Your task to perform on an android device: Go to location settings Image 0: 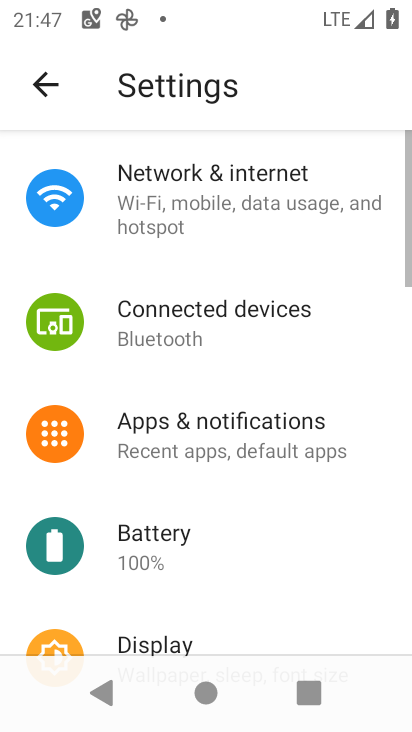
Step 0: drag from (278, 554) to (261, 212)
Your task to perform on an android device: Go to location settings Image 1: 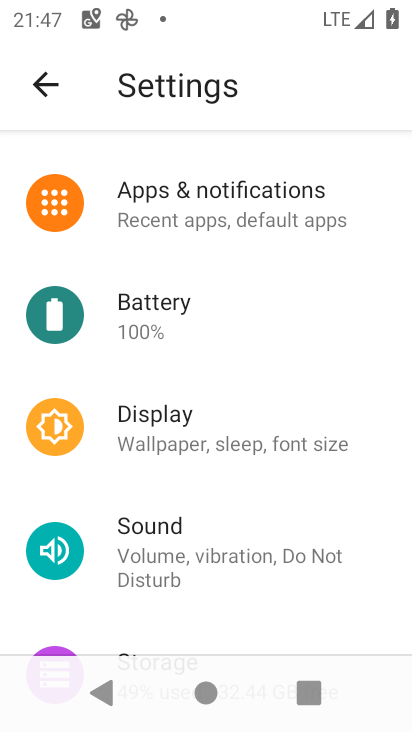
Step 1: drag from (240, 613) to (269, 255)
Your task to perform on an android device: Go to location settings Image 2: 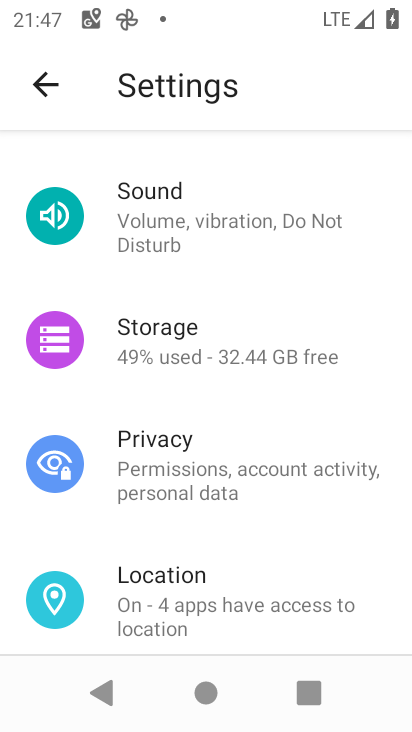
Step 2: click (221, 600)
Your task to perform on an android device: Go to location settings Image 3: 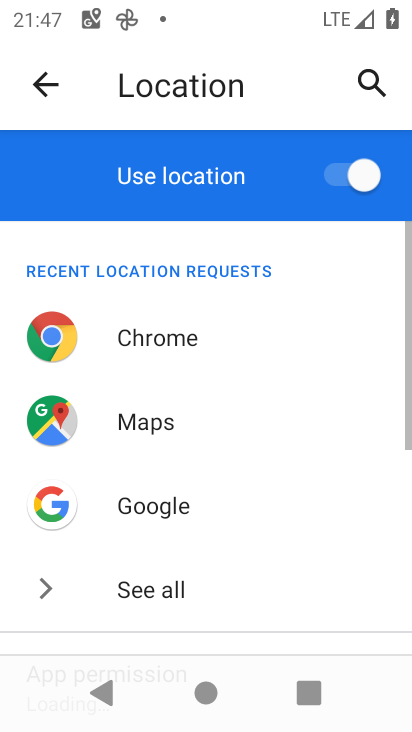
Step 3: task complete